Your task to perform on an android device: Open calendar and show me the first week of next month Image 0: 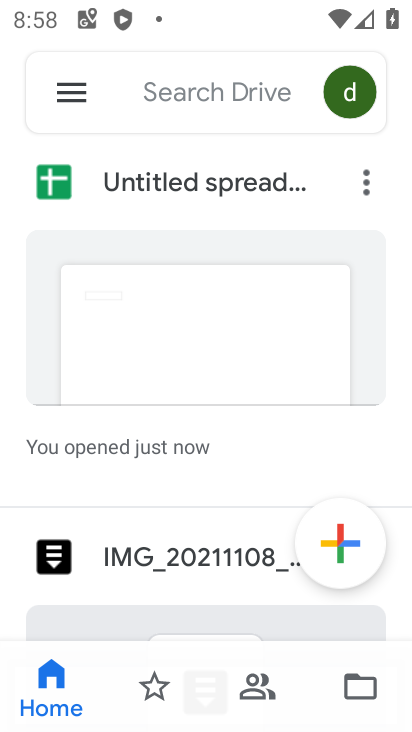
Step 0: press home button
Your task to perform on an android device: Open calendar and show me the first week of next month Image 1: 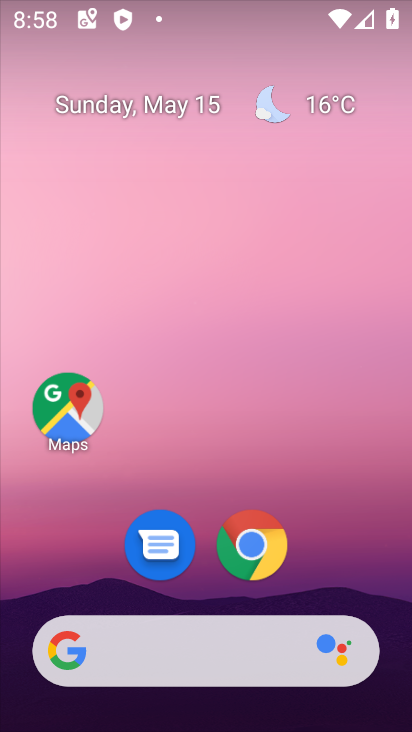
Step 1: drag from (339, 562) to (245, 5)
Your task to perform on an android device: Open calendar and show me the first week of next month Image 2: 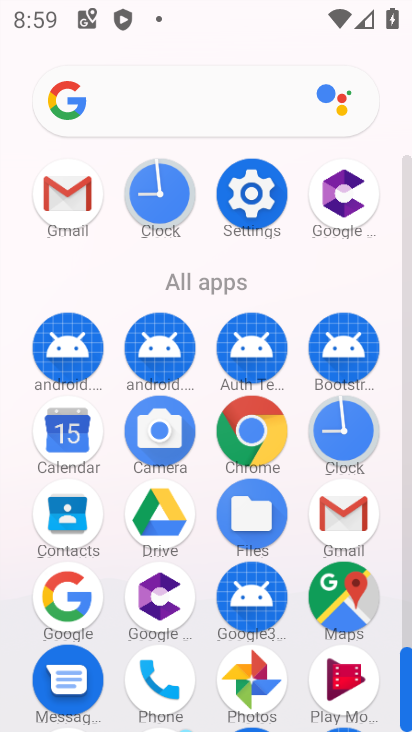
Step 2: click (64, 435)
Your task to perform on an android device: Open calendar and show me the first week of next month Image 3: 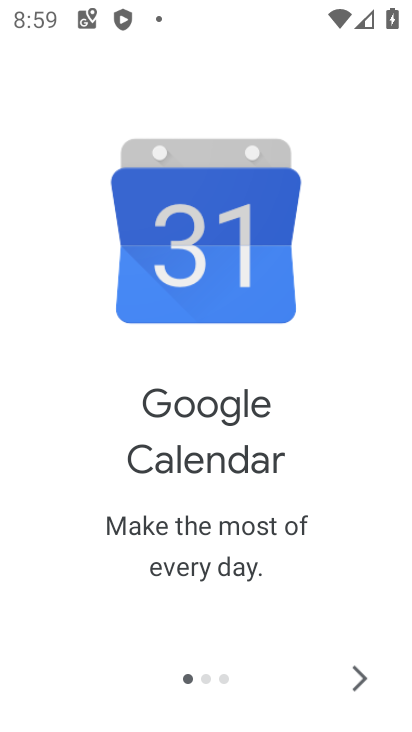
Step 3: click (362, 678)
Your task to perform on an android device: Open calendar and show me the first week of next month Image 4: 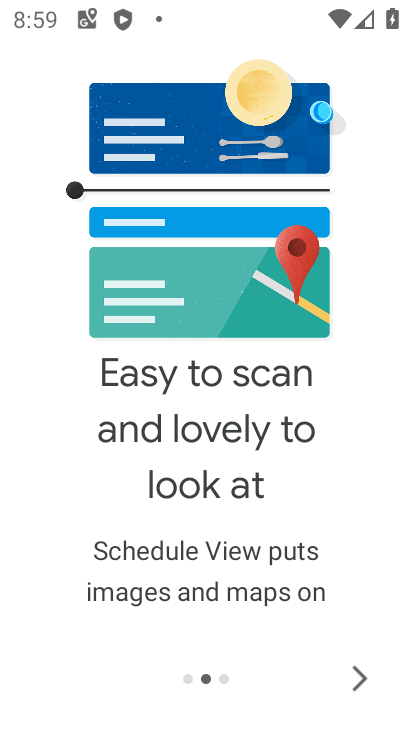
Step 4: click (362, 678)
Your task to perform on an android device: Open calendar and show me the first week of next month Image 5: 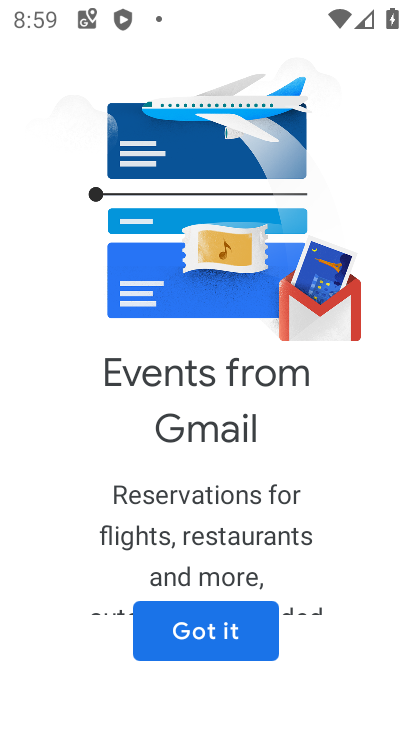
Step 5: click (196, 631)
Your task to perform on an android device: Open calendar and show me the first week of next month Image 6: 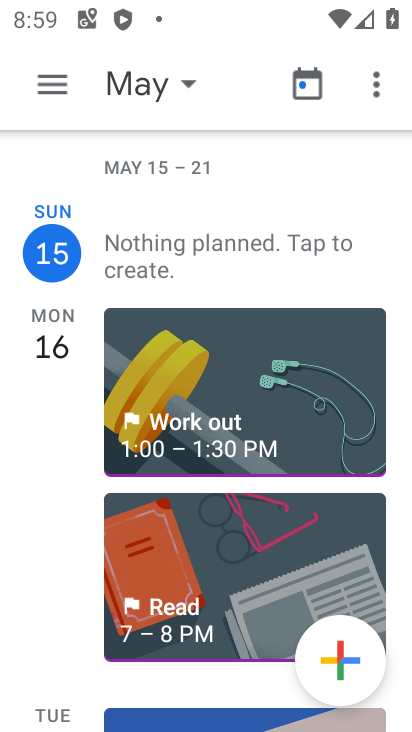
Step 6: click (190, 80)
Your task to perform on an android device: Open calendar and show me the first week of next month Image 7: 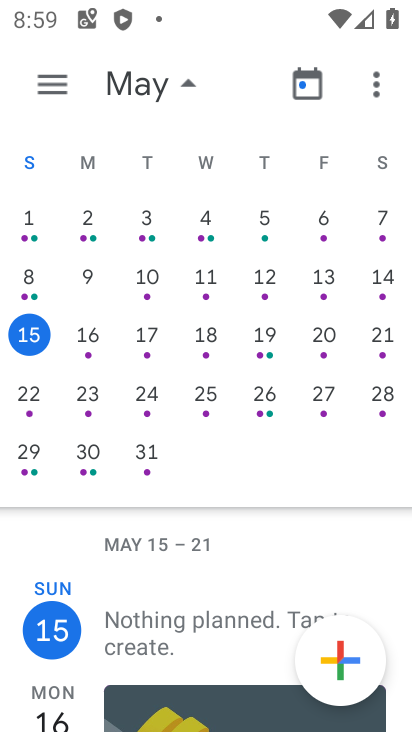
Step 7: drag from (356, 363) to (7, 361)
Your task to perform on an android device: Open calendar and show me the first week of next month Image 8: 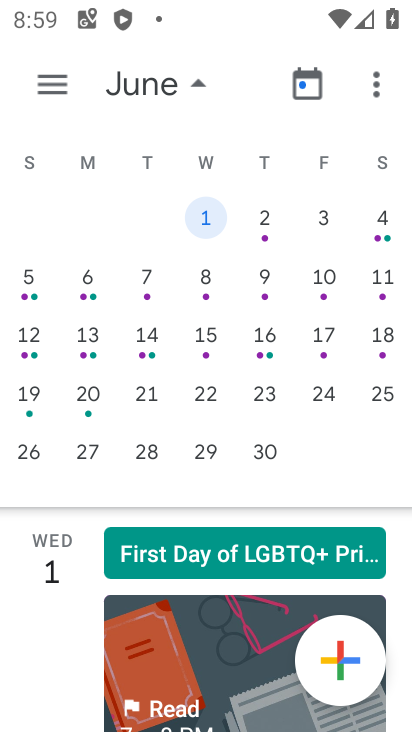
Step 8: click (88, 276)
Your task to perform on an android device: Open calendar and show me the first week of next month Image 9: 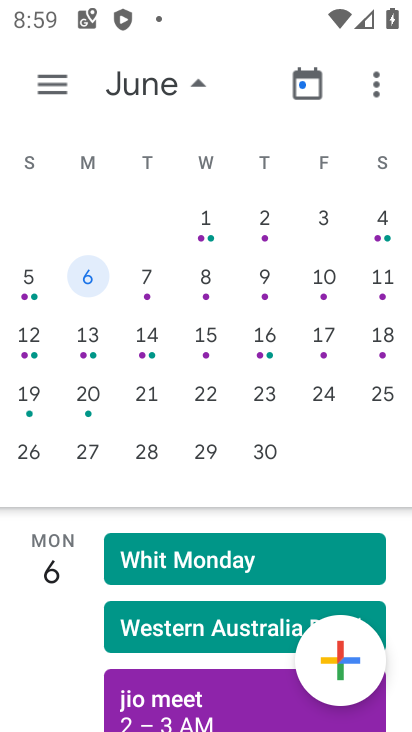
Step 9: click (55, 93)
Your task to perform on an android device: Open calendar and show me the first week of next month Image 10: 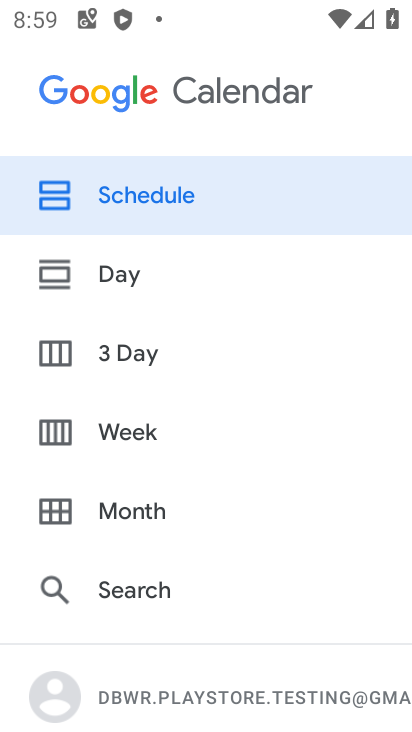
Step 10: click (103, 436)
Your task to perform on an android device: Open calendar and show me the first week of next month Image 11: 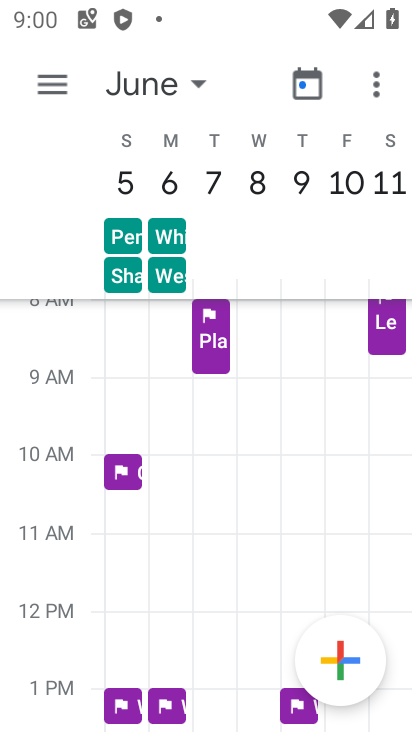
Step 11: task complete